Your task to perform on an android device: turn on javascript in the chrome app Image 0: 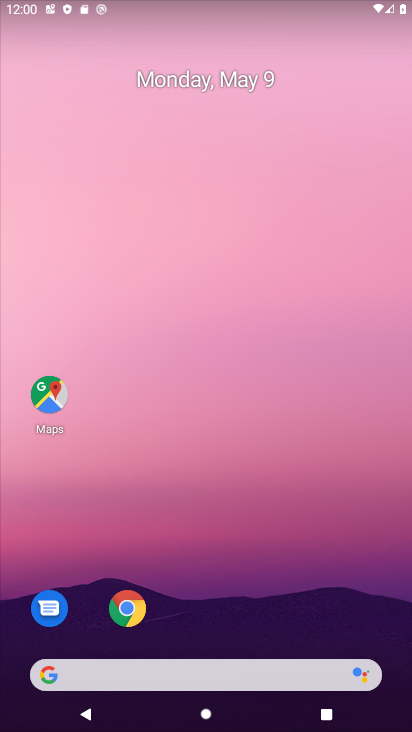
Step 0: click (138, 606)
Your task to perform on an android device: turn on javascript in the chrome app Image 1: 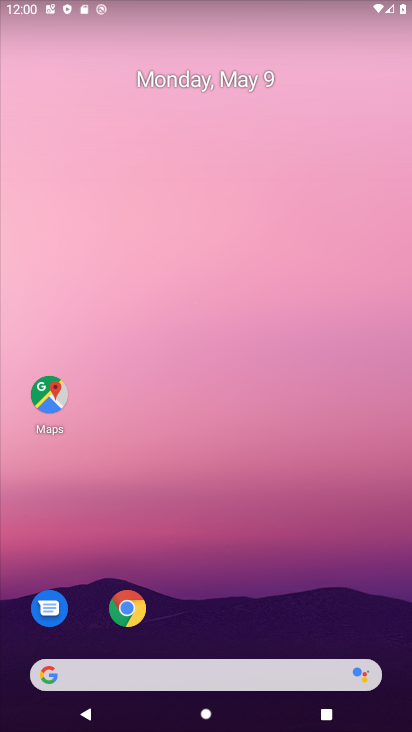
Step 1: click (138, 606)
Your task to perform on an android device: turn on javascript in the chrome app Image 2: 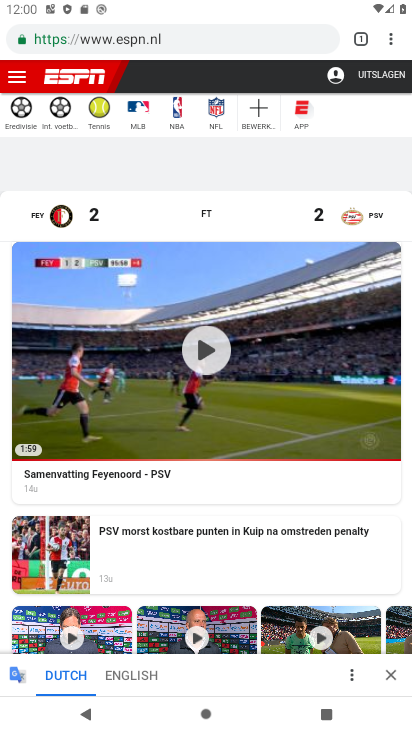
Step 2: click (398, 49)
Your task to perform on an android device: turn on javascript in the chrome app Image 3: 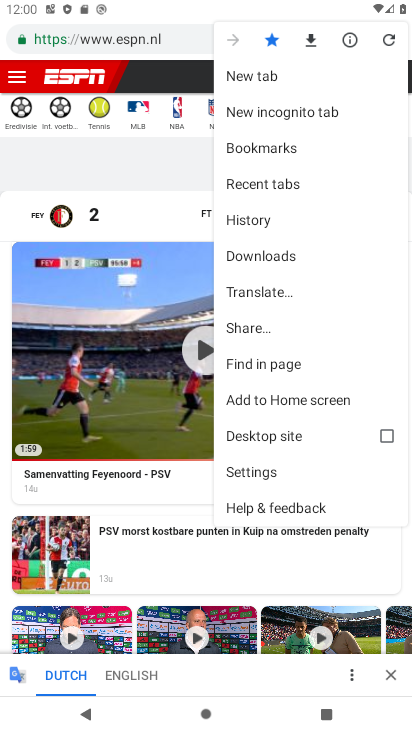
Step 3: click (314, 473)
Your task to perform on an android device: turn on javascript in the chrome app Image 4: 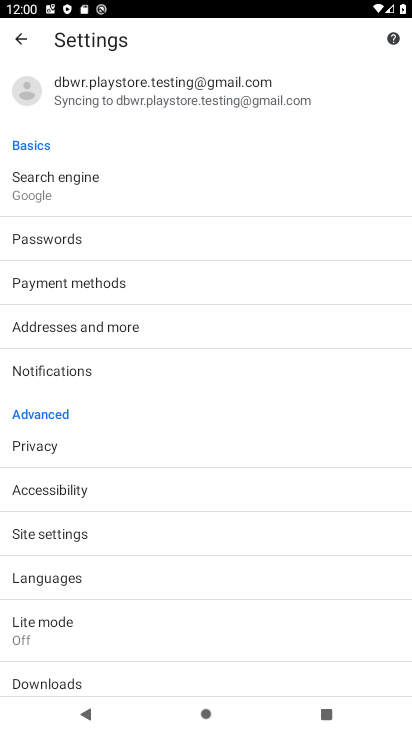
Step 4: drag from (185, 651) to (254, 457)
Your task to perform on an android device: turn on javascript in the chrome app Image 5: 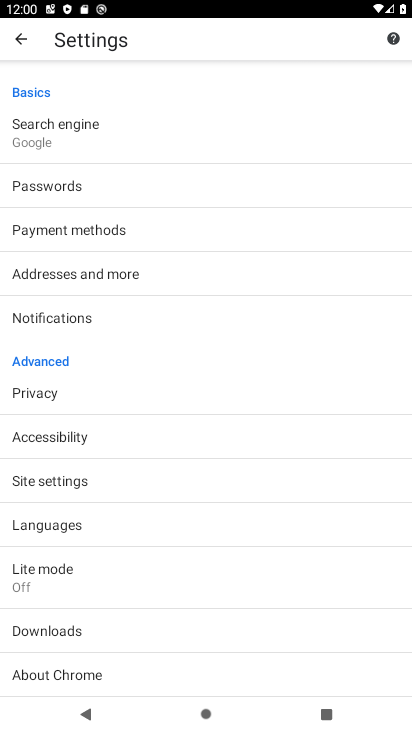
Step 5: click (150, 481)
Your task to perform on an android device: turn on javascript in the chrome app Image 6: 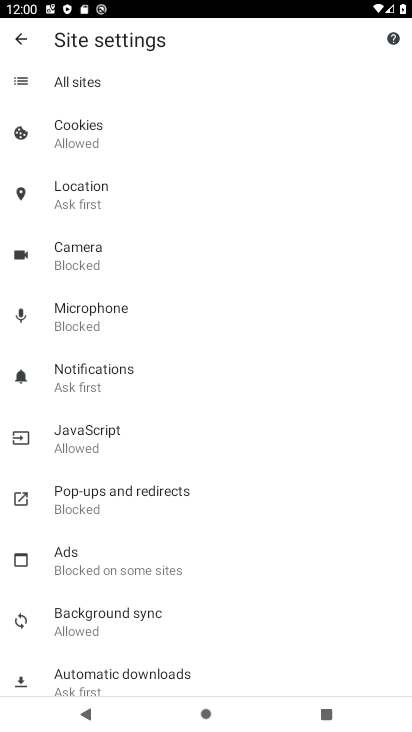
Step 6: click (160, 427)
Your task to perform on an android device: turn on javascript in the chrome app Image 7: 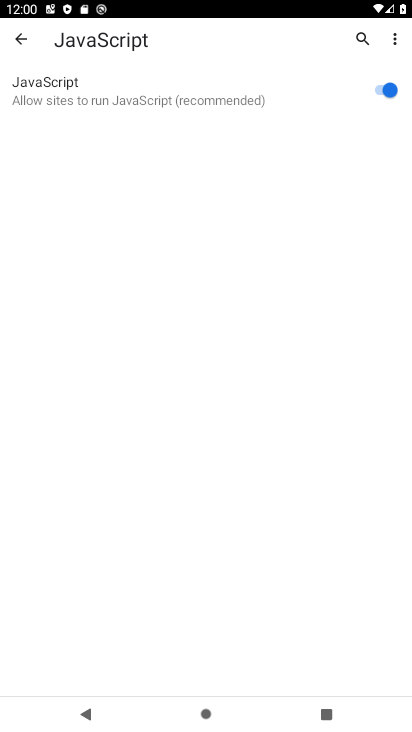
Step 7: task complete